Your task to perform on an android device: choose inbox layout in the gmail app Image 0: 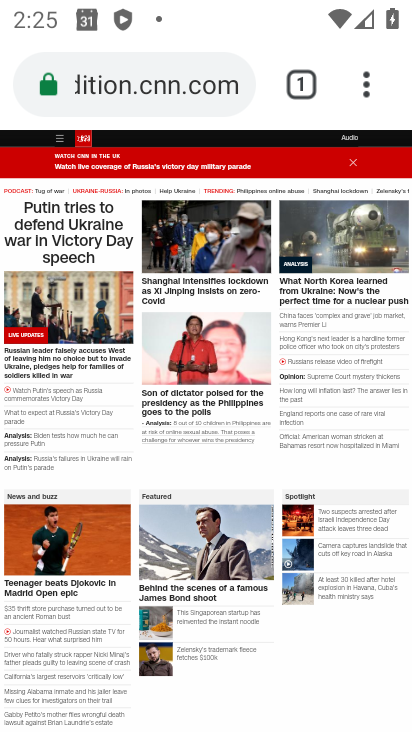
Step 0: press home button
Your task to perform on an android device: choose inbox layout in the gmail app Image 1: 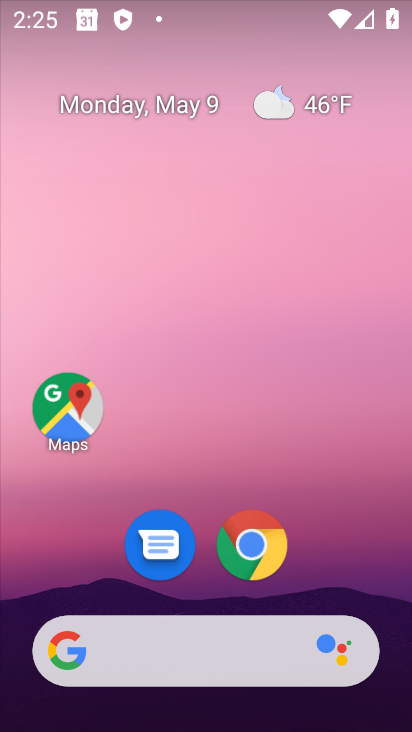
Step 1: drag from (226, 587) to (231, 302)
Your task to perform on an android device: choose inbox layout in the gmail app Image 2: 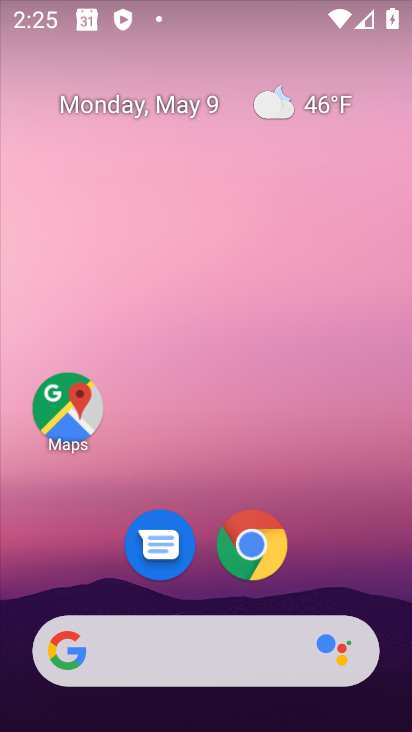
Step 2: drag from (202, 592) to (208, 242)
Your task to perform on an android device: choose inbox layout in the gmail app Image 3: 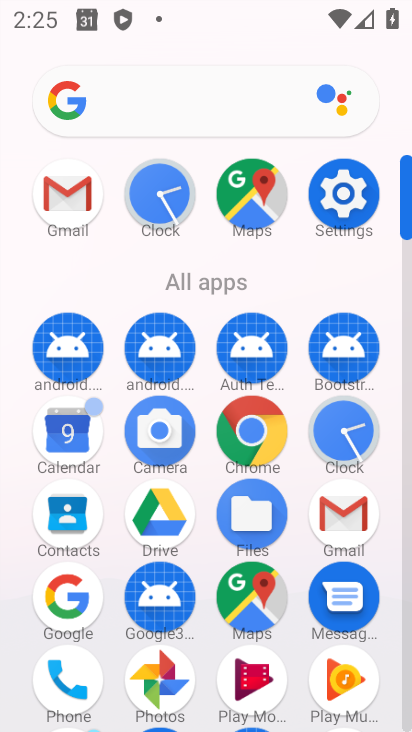
Step 3: click (319, 506)
Your task to perform on an android device: choose inbox layout in the gmail app Image 4: 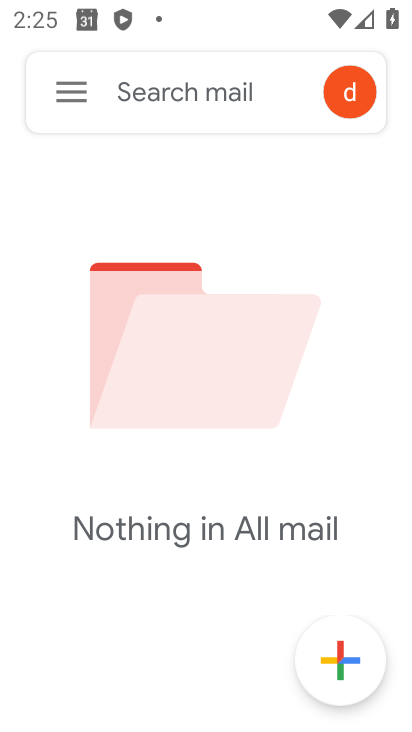
Step 4: click (71, 102)
Your task to perform on an android device: choose inbox layout in the gmail app Image 5: 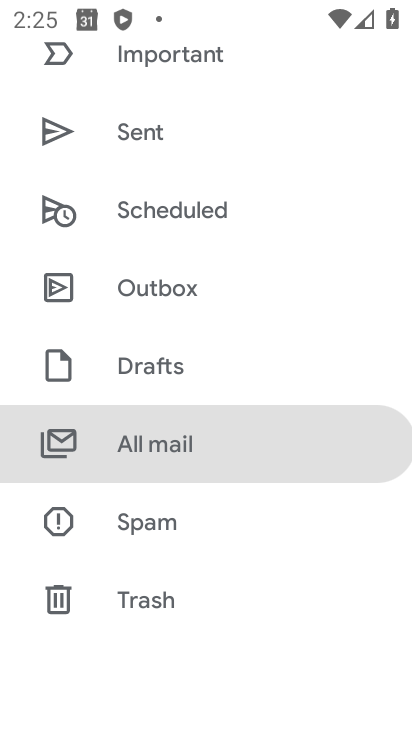
Step 5: drag from (188, 574) to (242, 223)
Your task to perform on an android device: choose inbox layout in the gmail app Image 6: 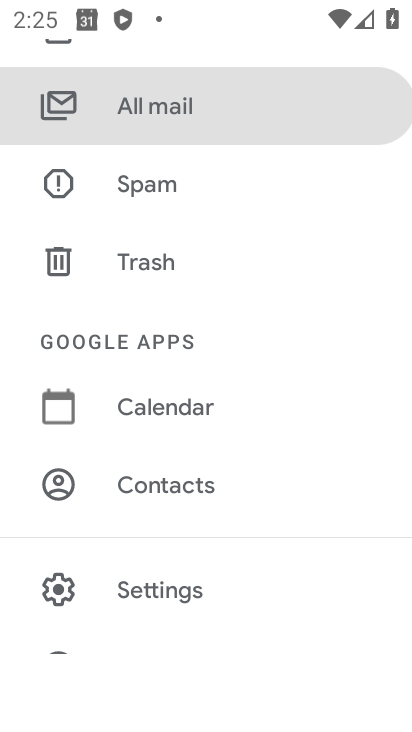
Step 6: drag from (166, 622) to (197, 310)
Your task to perform on an android device: choose inbox layout in the gmail app Image 7: 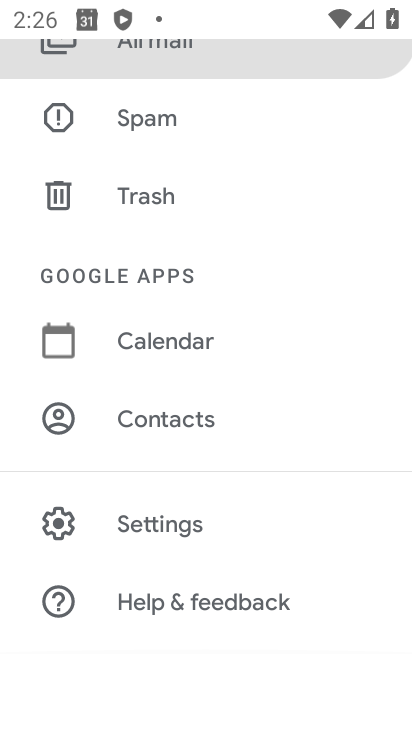
Step 7: click (173, 520)
Your task to perform on an android device: choose inbox layout in the gmail app Image 8: 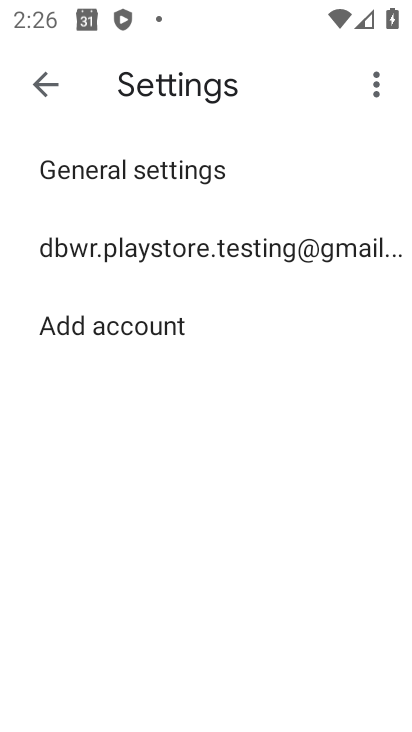
Step 8: click (232, 258)
Your task to perform on an android device: choose inbox layout in the gmail app Image 9: 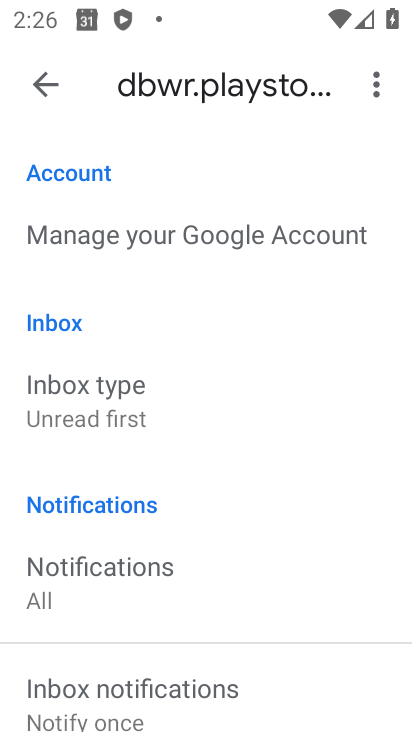
Step 9: click (155, 400)
Your task to perform on an android device: choose inbox layout in the gmail app Image 10: 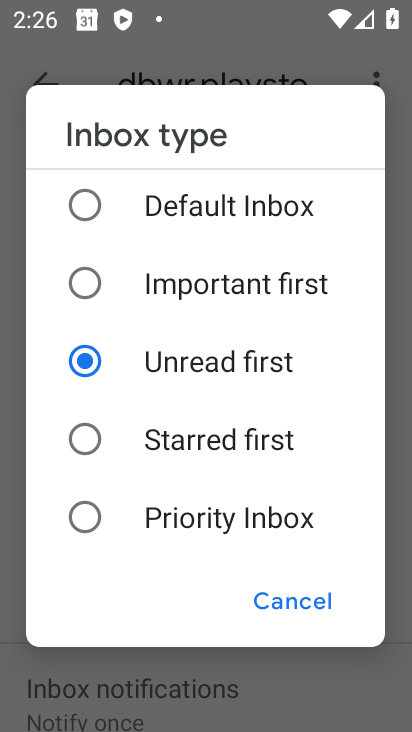
Step 10: click (189, 525)
Your task to perform on an android device: choose inbox layout in the gmail app Image 11: 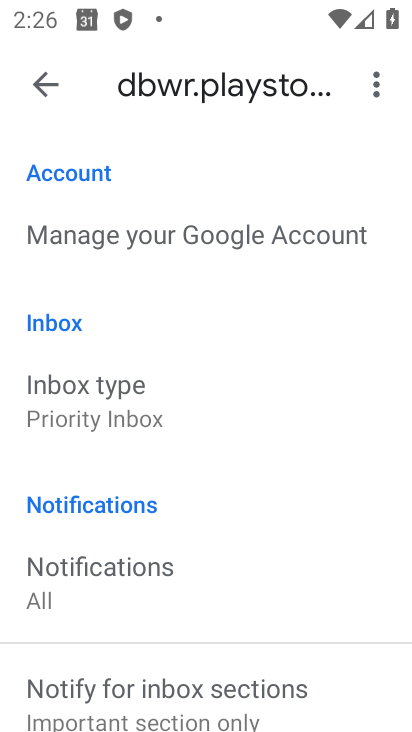
Step 11: task complete